Your task to perform on an android device: Go to notification settings Image 0: 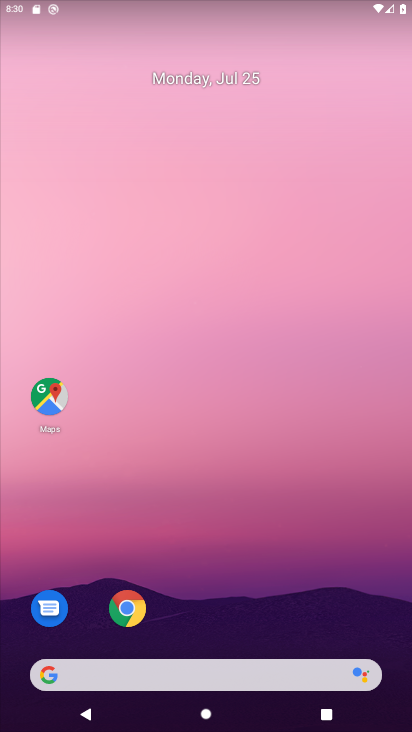
Step 0: drag from (272, 217) to (272, 108)
Your task to perform on an android device: Go to notification settings Image 1: 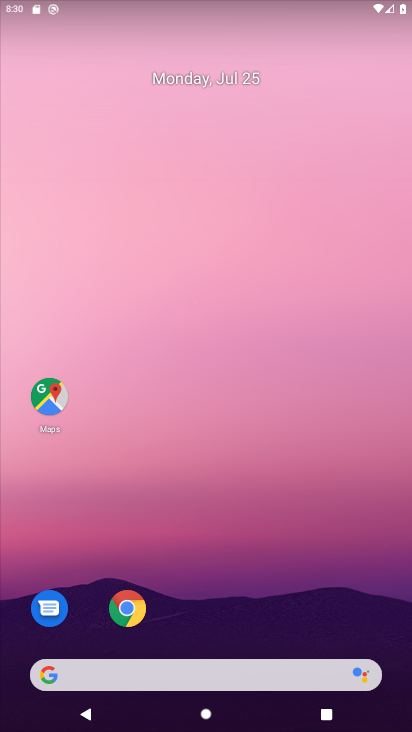
Step 1: drag from (260, 581) to (312, 46)
Your task to perform on an android device: Go to notification settings Image 2: 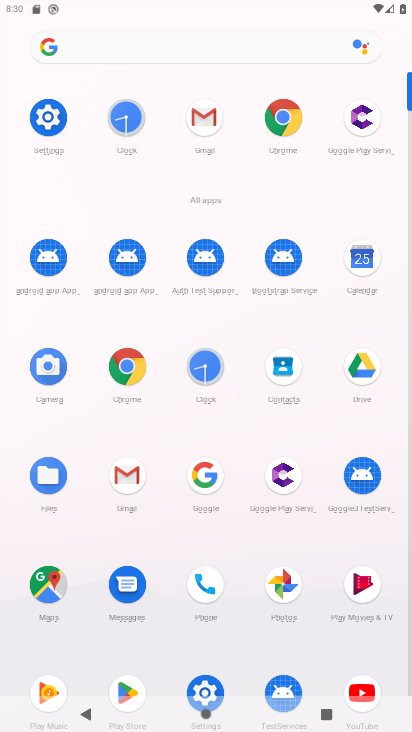
Step 2: click (41, 119)
Your task to perform on an android device: Go to notification settings Image 3: 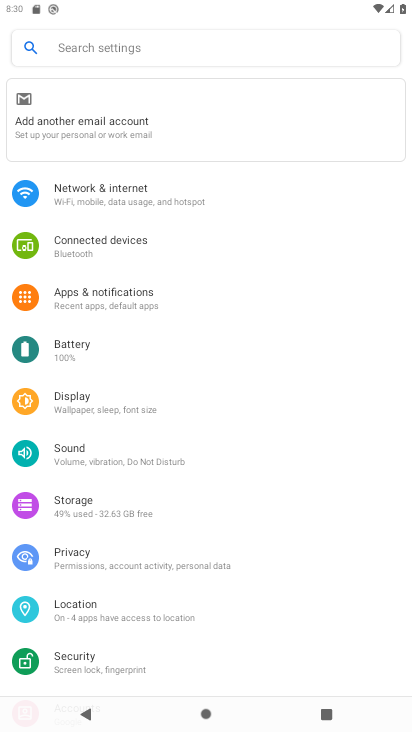
Step 3: click (153, 298)
Your task to perform on an android device: Go to notification settings Image 4: 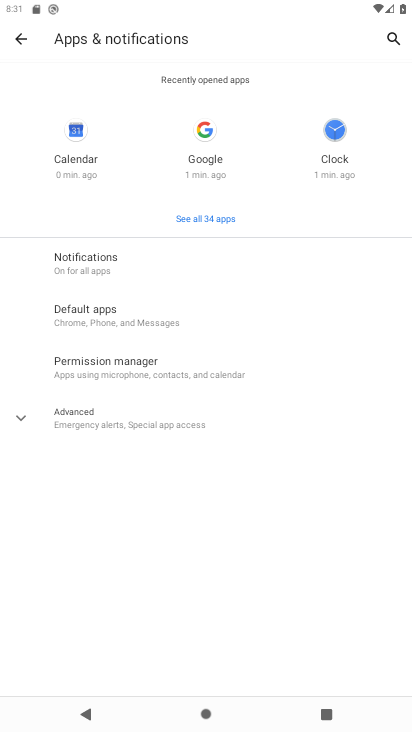
Step 4: click (114, 276)
Your task to perform on an android device: Go to notification settings Image 5: 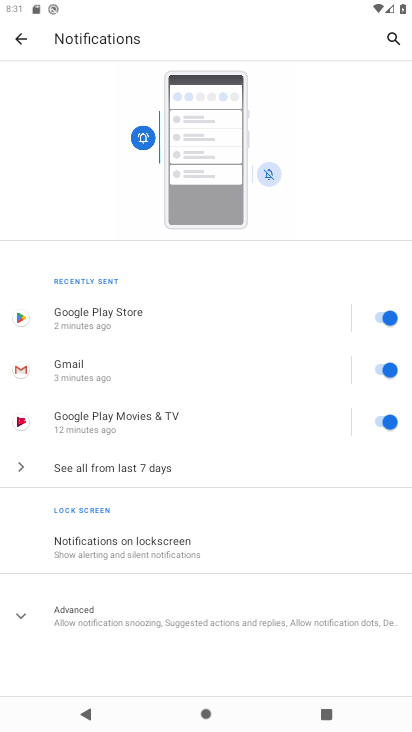
Step 5: task complete